Your task to perform on an android device: Open privacy settings Image 0: 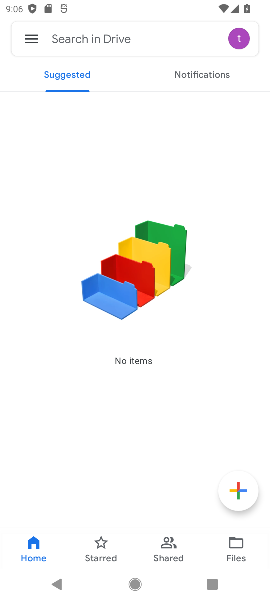
Step 0: press home button
Your task to perform on an android device: Open privacy settings Image 1: 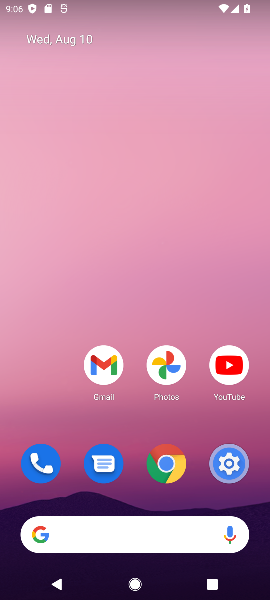
Step 1: click (239, 484)
Your task to perform on an android device: Open privacy settings Image 2: 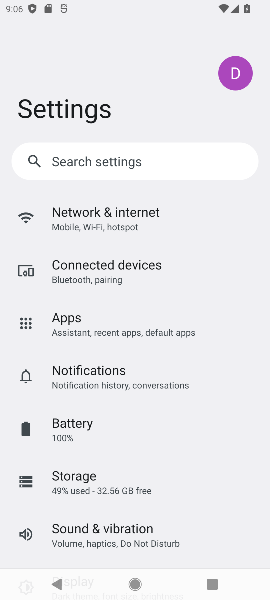
Step 2: drag from (195, 485) to (172, 136)
Your task to perform on an android device: Open privacy settings Image 3: 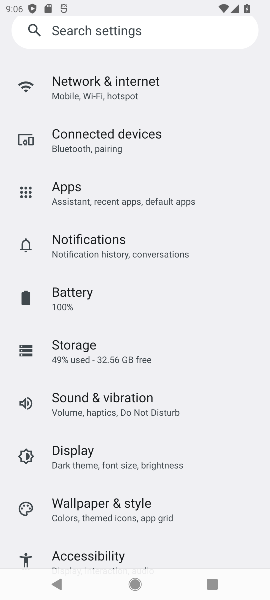
Step 3: drag from (221, 82) to (257, 525)
Your task to perform on an android device: Open privacy settings Image 4: 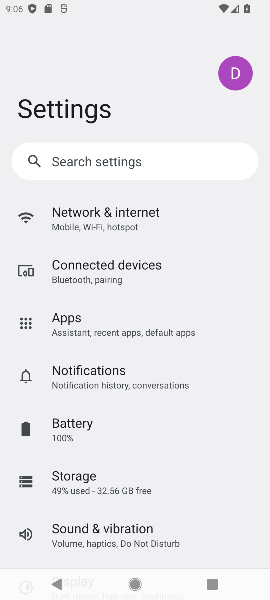
Step 4: drag from (212, 539) to (163, 261)
Your task to perform on an android device: Open privacy settings Image 5: 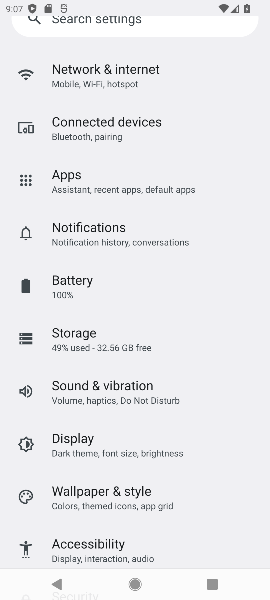
Step 5: drag from (217, 93) to (253, 275)
Your task to perform on an android device: Open privacy settings Image 6: 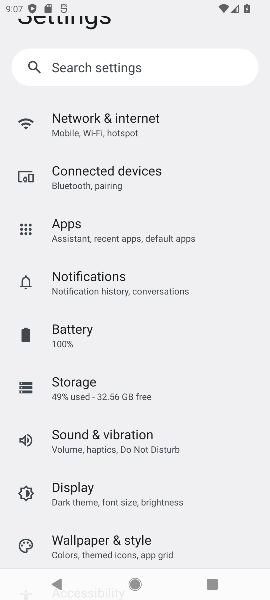
Step 6: drag from (237, 485) to (195, 71)
Your task to perform on an android device: Open privacy settings Image 7: 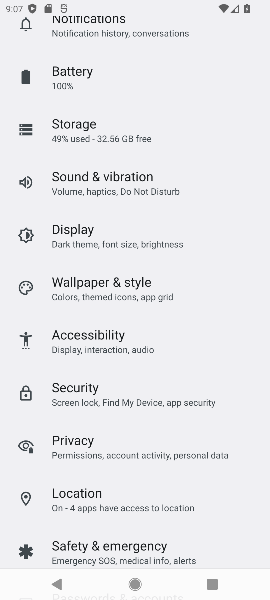
Step 7: click (98, 451)
Your task to perform on an android device: Open privacy settings Image 8: 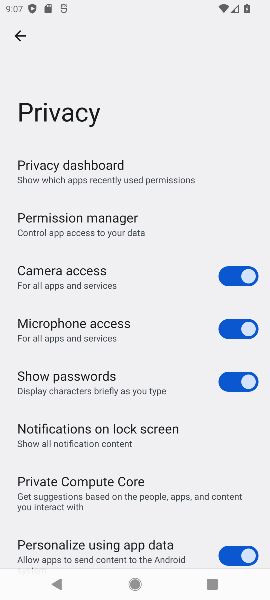
Step 8: task complete